Your task to perform on an android device: open app "Skype" (install if not already installed) Image 0: 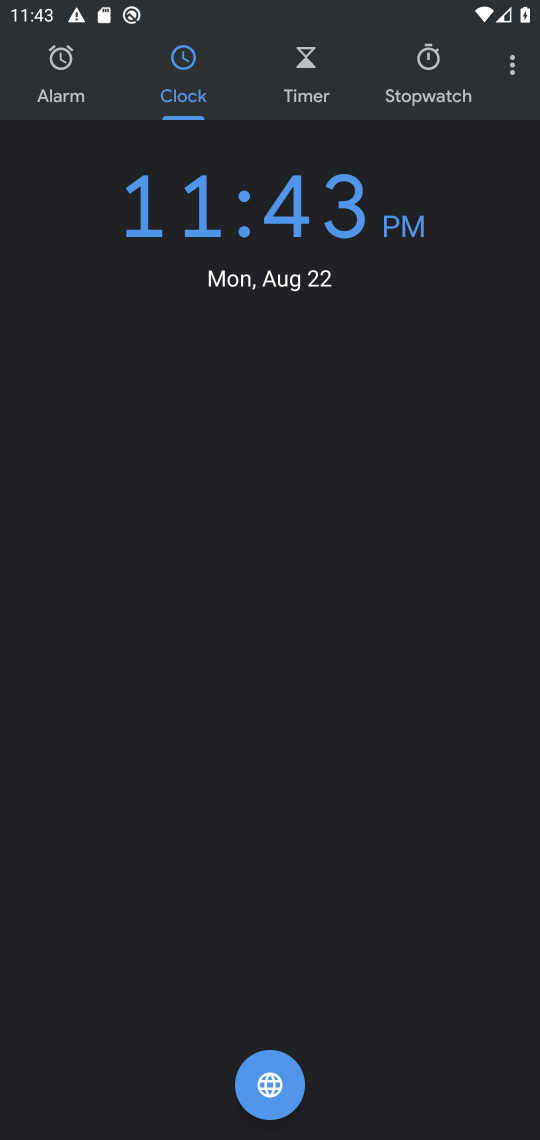
Step 0: press home button
Your task to perform on an android device: open app "Skype" (install if not already installed) Image 1: 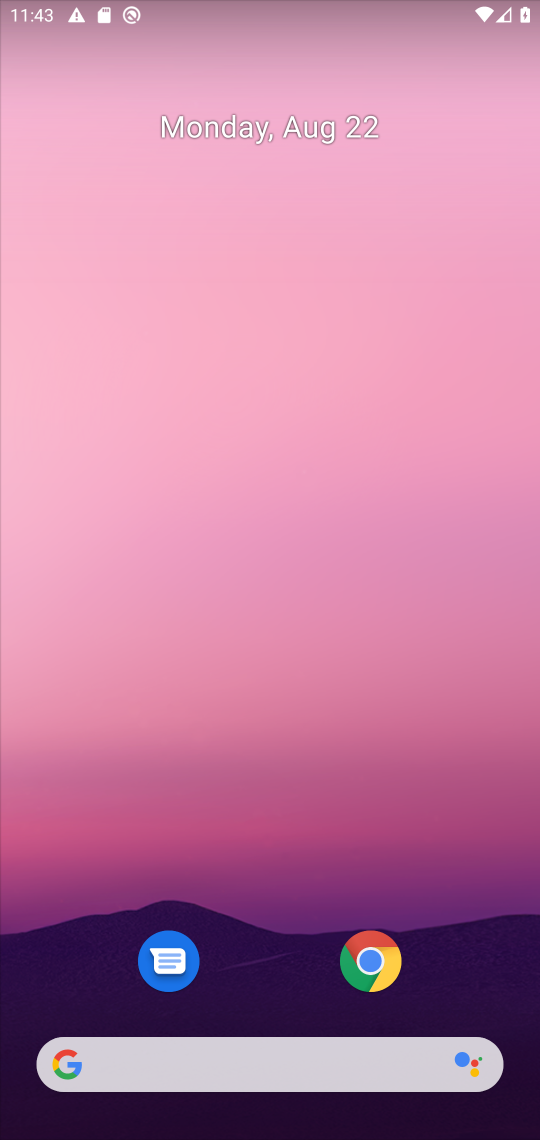
Step 1: drag from (286, 1009) to (383, 230)
Your task to perform on an android device: open app "Skype" (install if not already installed) Image 2: 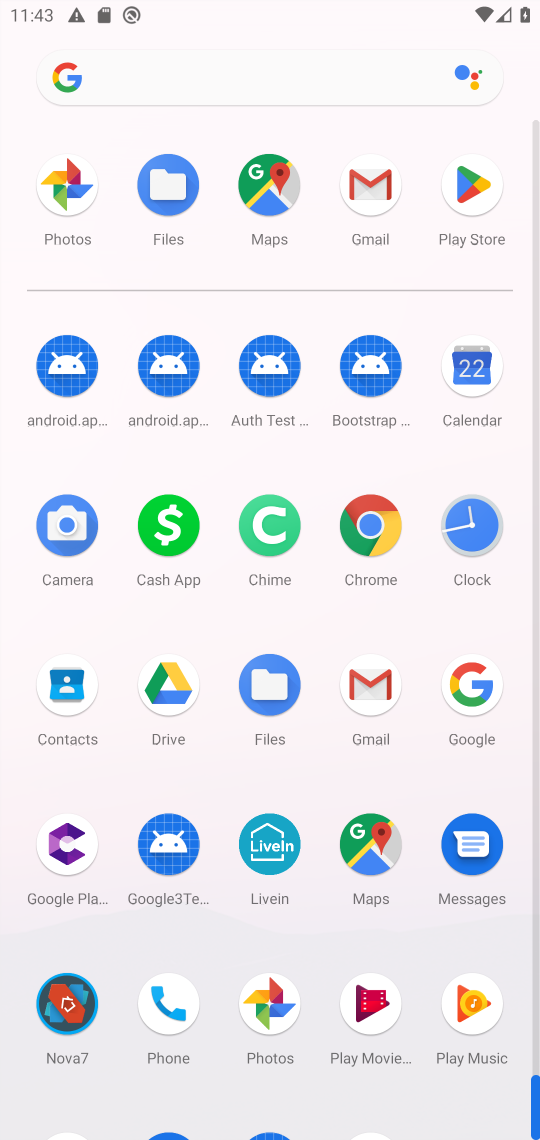
Step 2: click (447, 217)
Your task to perform on an android device: open app "Skype" (install if not already installed) Image 3: 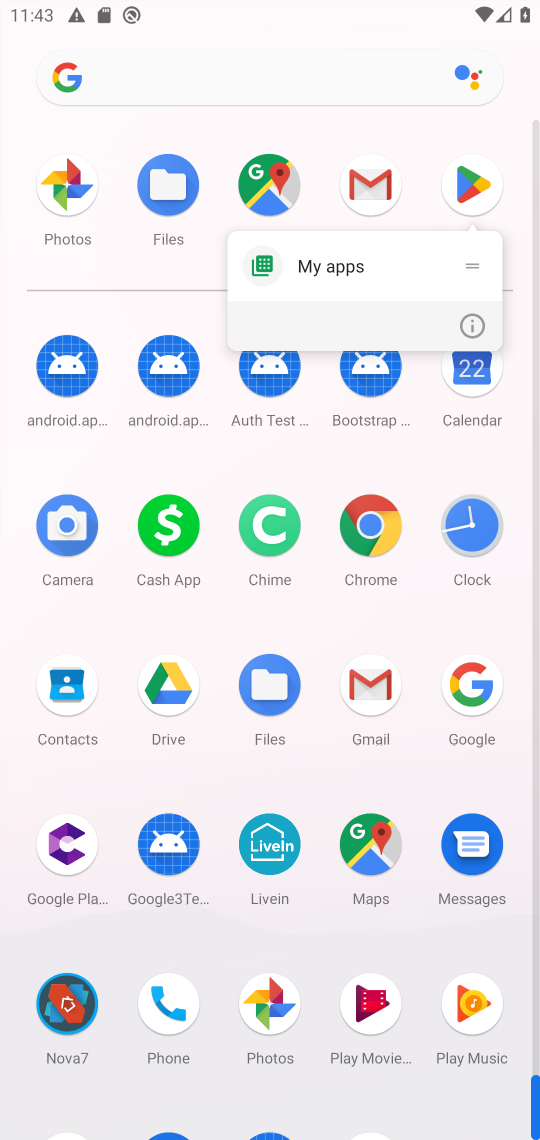
Step 3: click (462, 202)
Your task to perform on an android device: open app "Skype" (install if not already installed) Image 4: 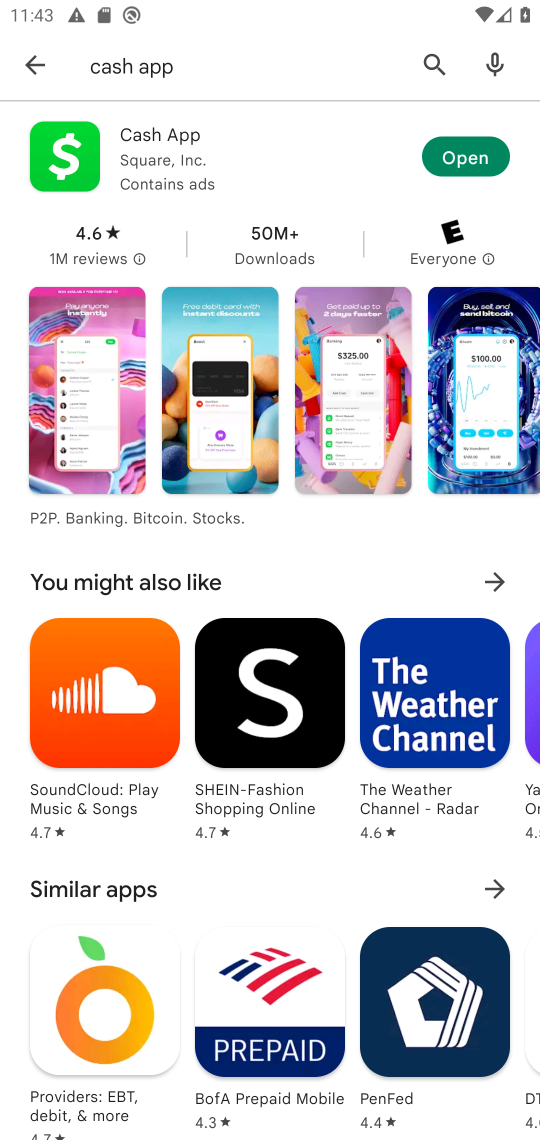
Step 4: click (414, 70)
Your task to perform on an android device: open app "Skype" (install if not already installed) Image 5: 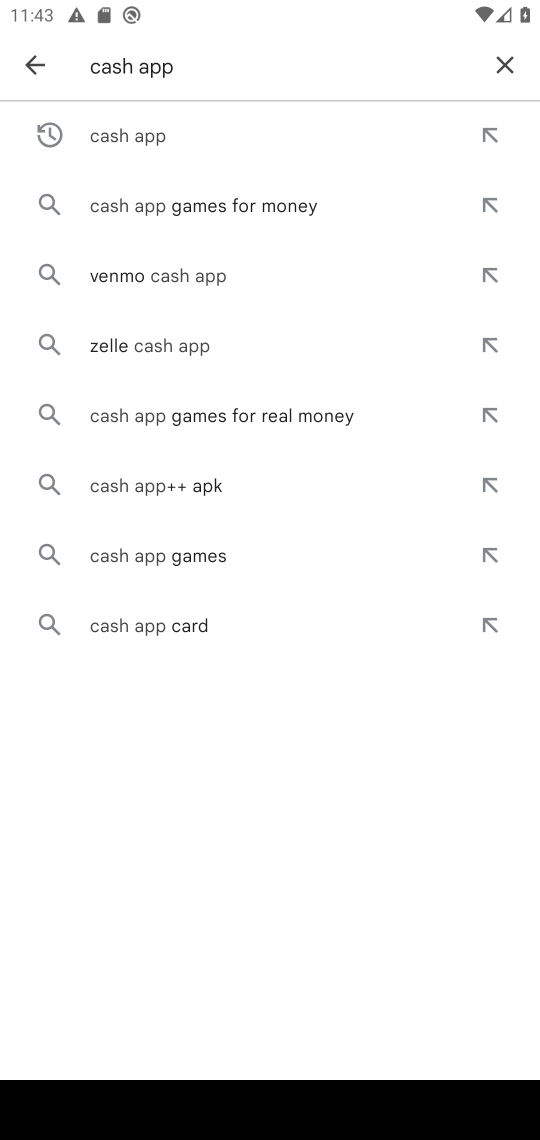
Step 5: click (484, 61)
Your task to perform on an android device: open app "Skype" (install if not already installed) Image 6: 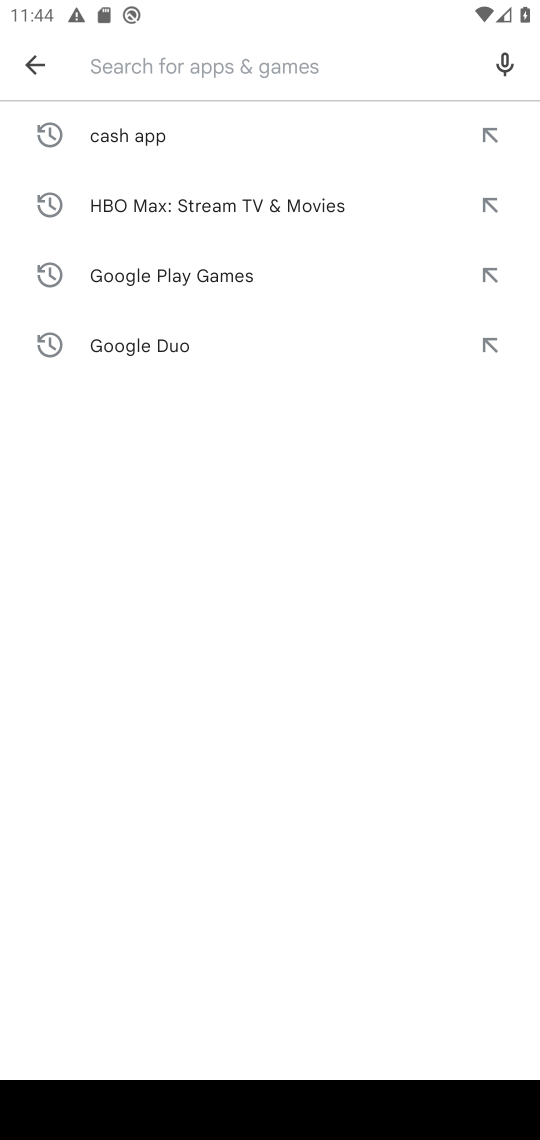
Step 6: type "skypr"
Your task to perform on an android device: open app "Skype" (install if not already installed) Image 7: 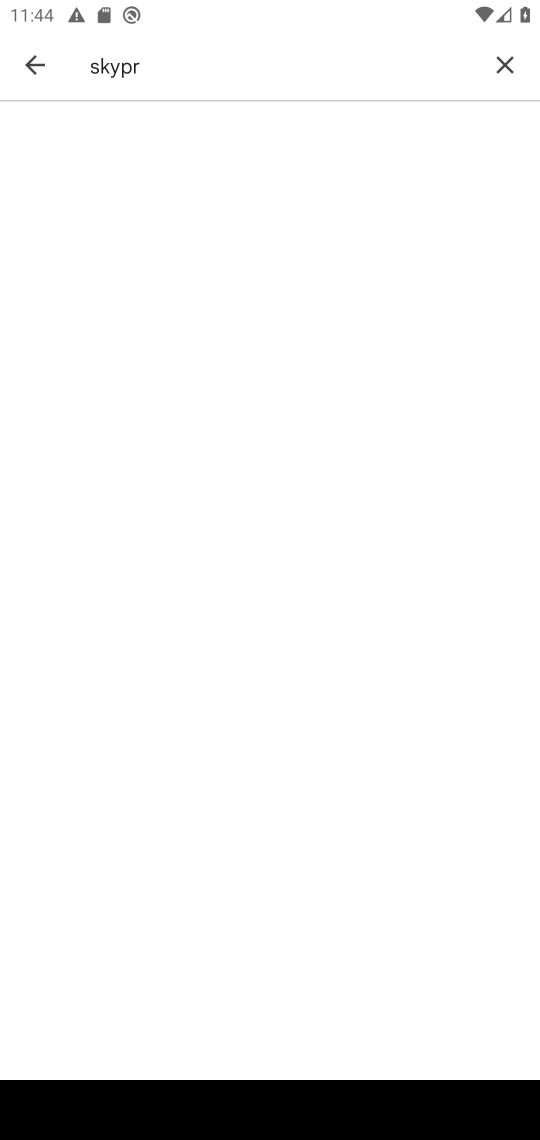
Step 7: task complete